Your task to perform on an android device: Search for Italian restaurants on Maps Image 0: 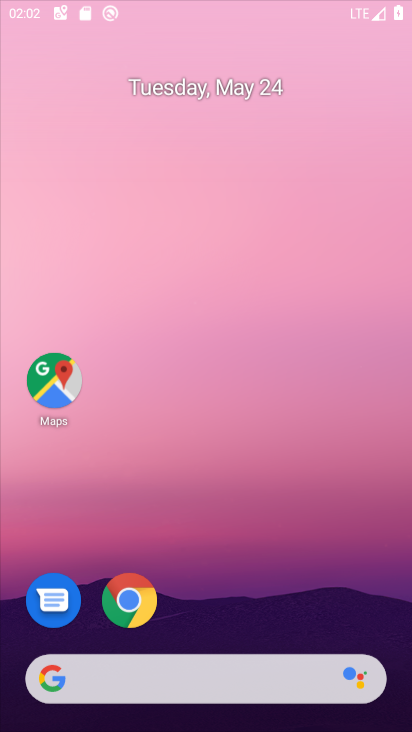
Step 0: click (115, 598)
Your task to perform on an android device: Search for Italian restaurants on Maps Image 1: 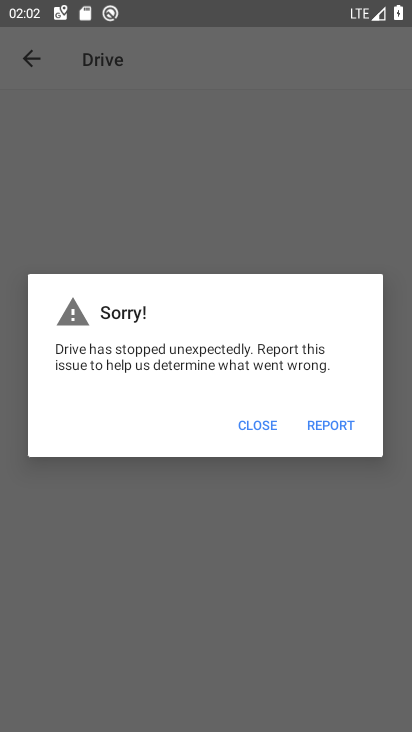
Step 1: press home button
Your task to perform on an android device: Search for Italian restaurants on Maps Image 2: 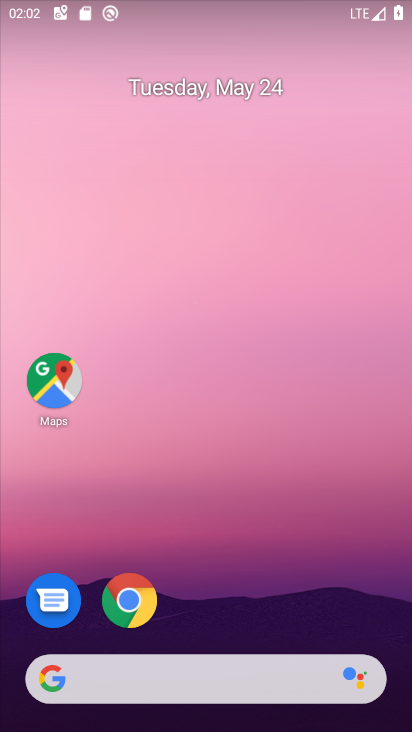
Step 2: click (69, 360)
Your task to perform on an android device: Search for Italian restaurants on Maps Image 3: 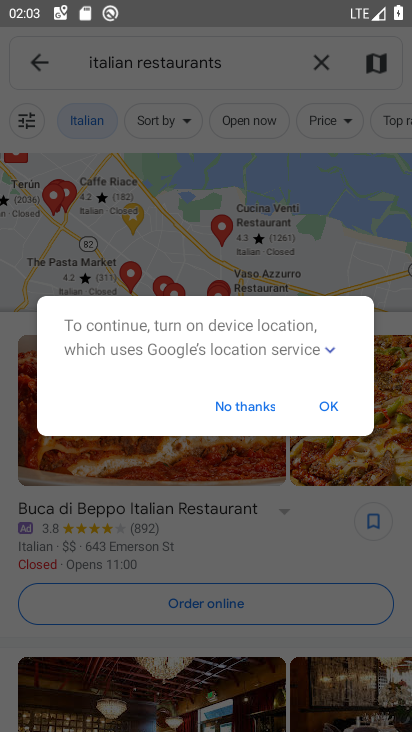
Step 3: click (325, 399)
Your task to perform on an android device: Search for Italian restaurants on Maps Image 4: 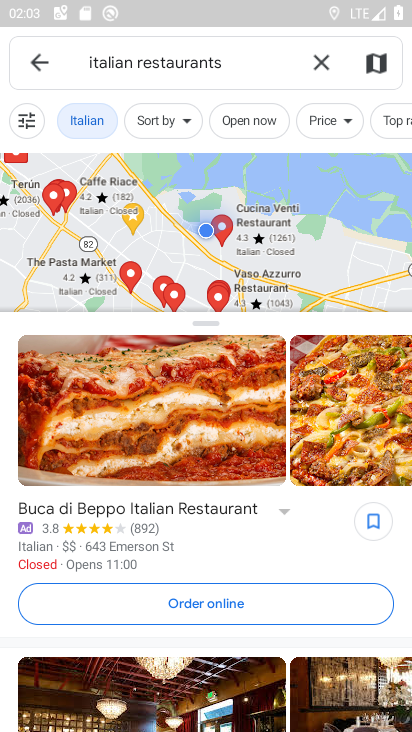
Step 4: task complete